Your task to perform on an android device: change text size in settings app Image 0: 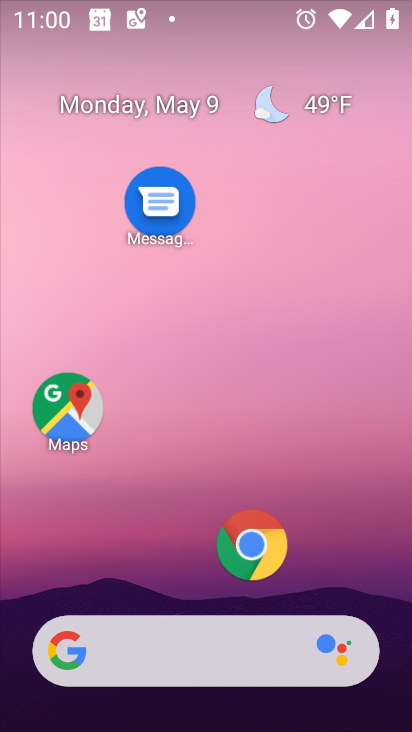
Step 0: drag from (314, 591) to (393, 70)
Your task to perform on an android device: change text size in settings app Image 1: 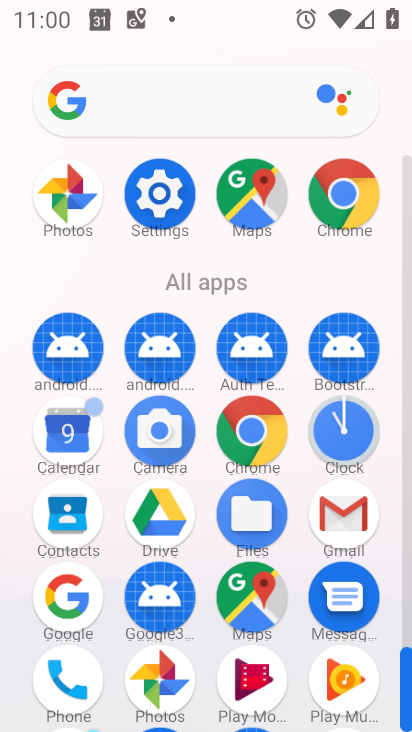
Step 1: click (164, 190)
Your task to perform on an android device: change text size in settings app Image 2: 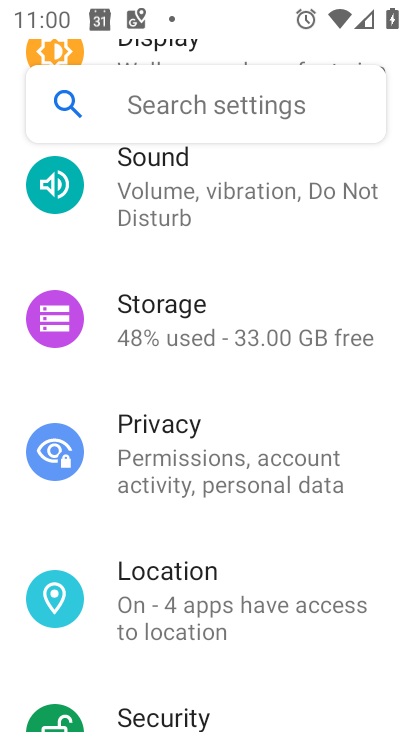
Step 2: drag from (224, 489) to (251, 606)
Your task to perform on an android device: change text size in settings app Image 3: 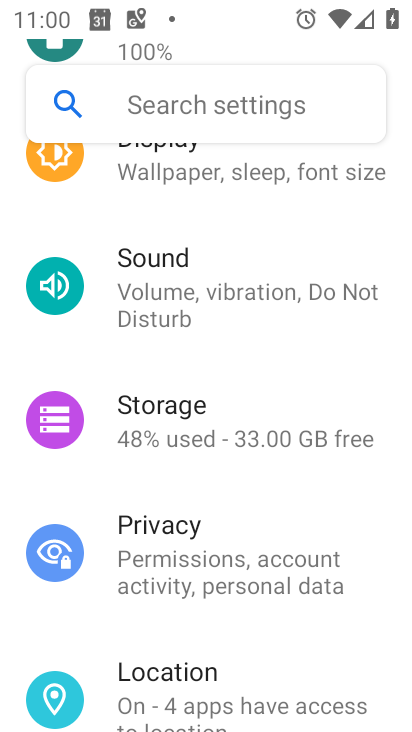
Step 3: click (301, 160)
Your task to perform on an android device: change text size in settings app Image 4: 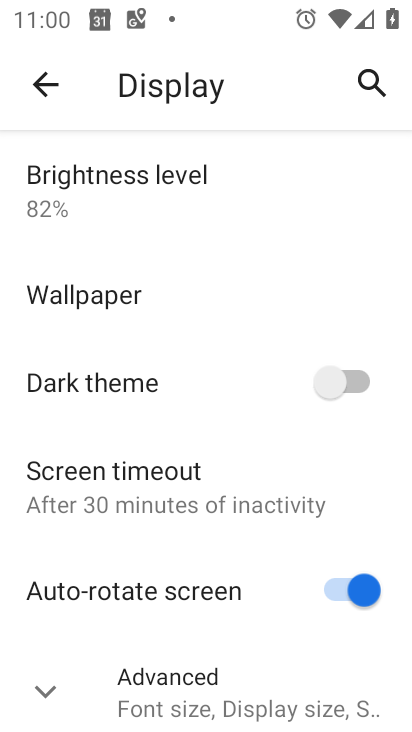
Step 4: click (229, 688)
Your task to perform on an android device: change text size in settings app Image 5: 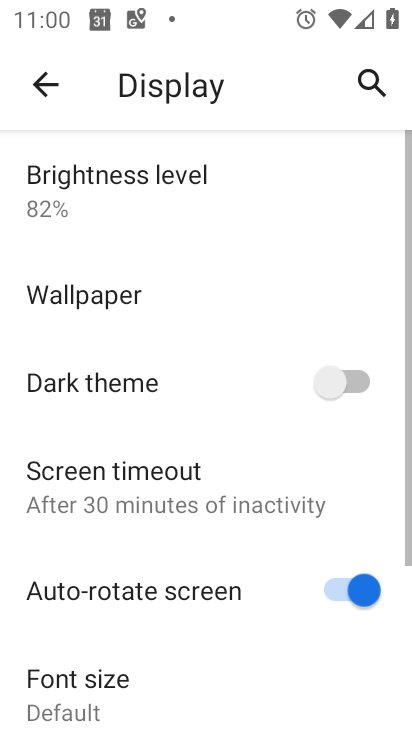
Step 5: drag from (229, 688) to (250, 547)
Your task to perform on an android device: change text size in settings app Image 6: 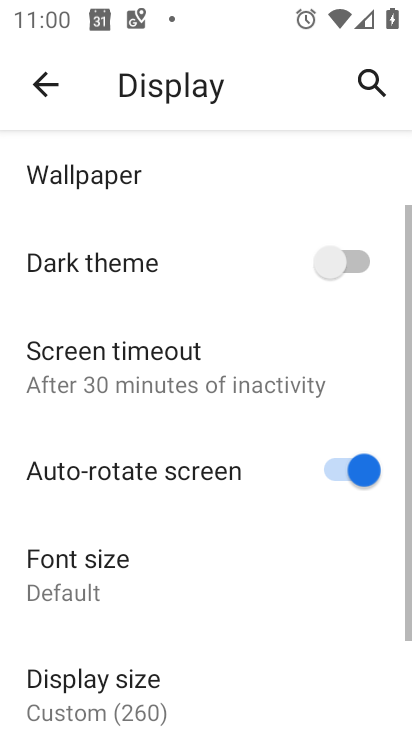
Step 6: drag from (223, 675) to (300, 512)
Your task to perform on an android device: change text size in settings app Image 7: 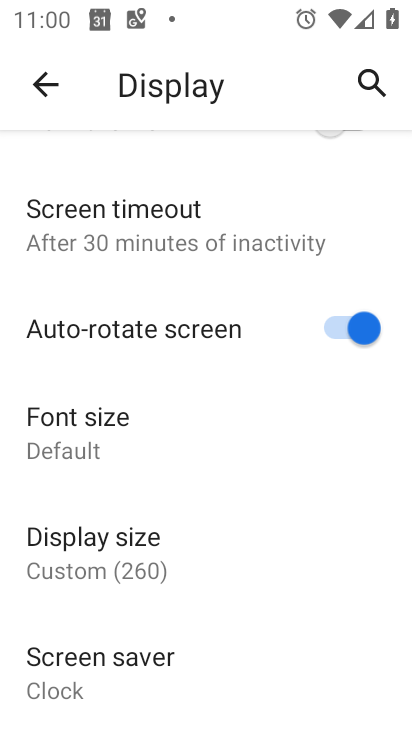
Step 7: click (238, 402)
Your task to perform on an android device: change text size in settings app Image 8: 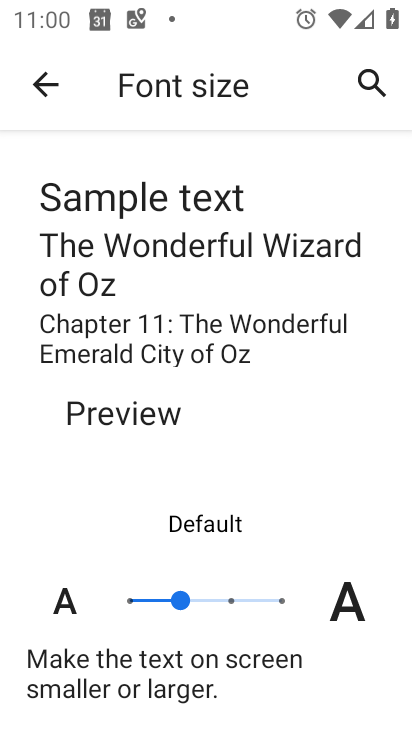
Step 8: click (226, 607)
Your task to perform on an android device: change text size in settings app Image 9: 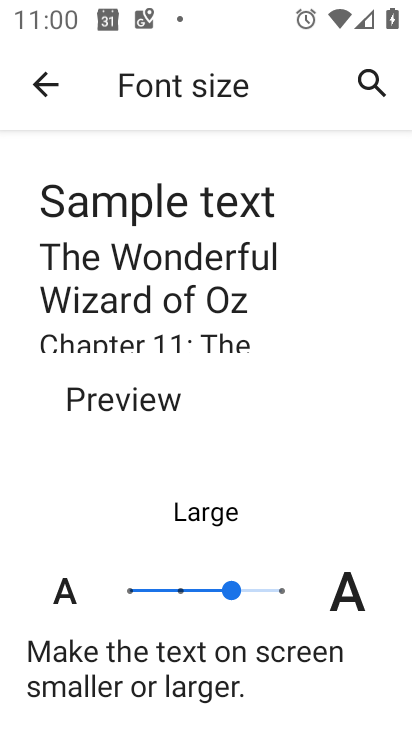
Step 9: task complete